Your task to perform on an android device: Play the last video I watched on Youtube Image 0: 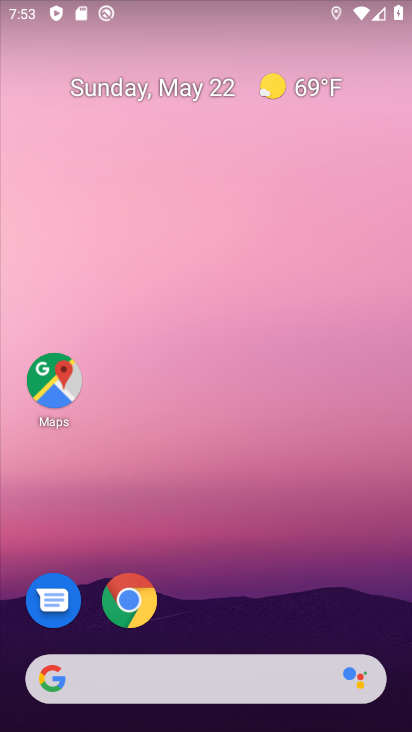
Step 0: drag from (224, 607) to (264, 192)
Your task to perform on an android device: Play the last video I watched on Youtube Image 1: 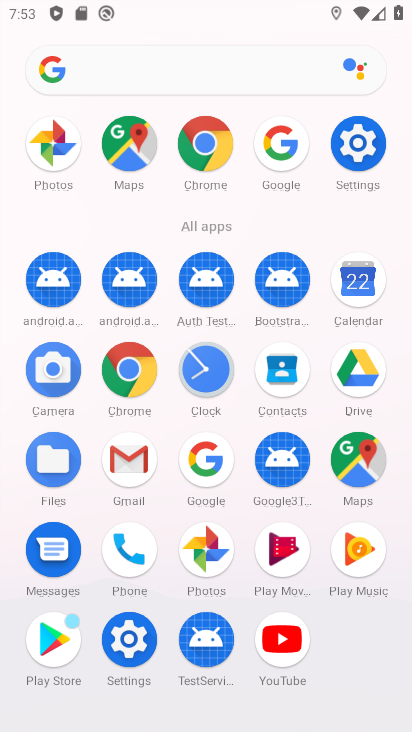
Step 1: click (284, 644)
Your task to perform on an android device: Play the last video I watched on Youtube Image 2: 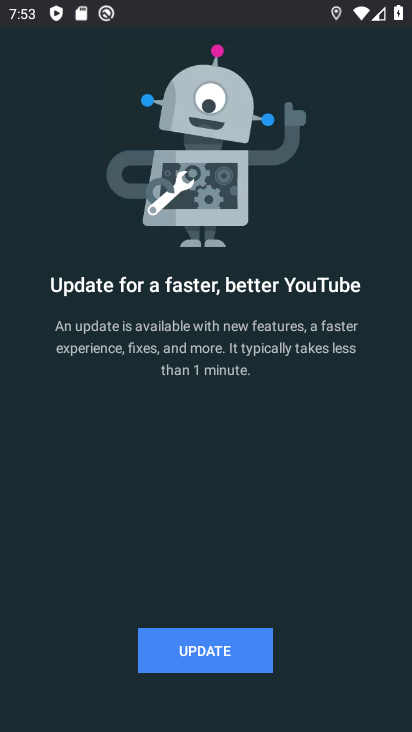
Step 2: click (196, 656)
Your task to perform on an android device: Play the last video I watched on Youtube Image 3: 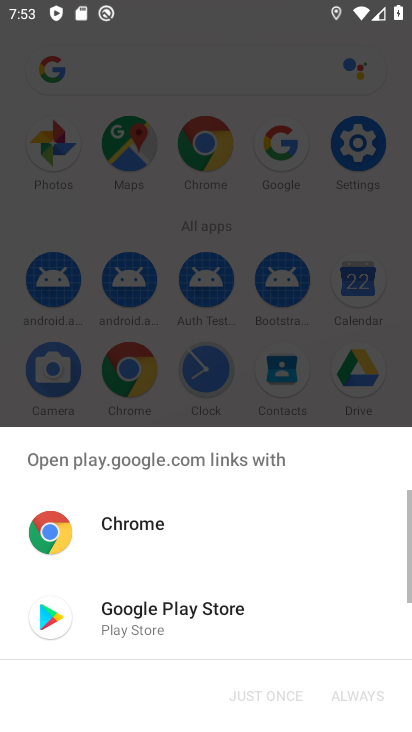
Step 3: click (171, 609)
Your task to perform on an android device: Play the last video I watched on Youtube Image 4: 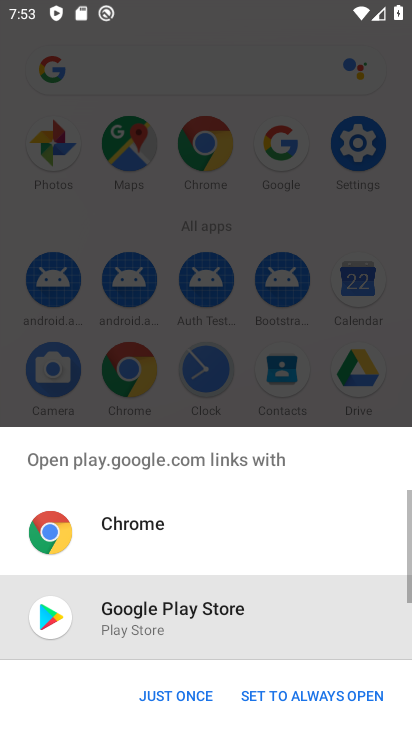
Step 4: click (162, 690)
Your task to perform on an android device: Play the last video I watched on Youtube Image 5: 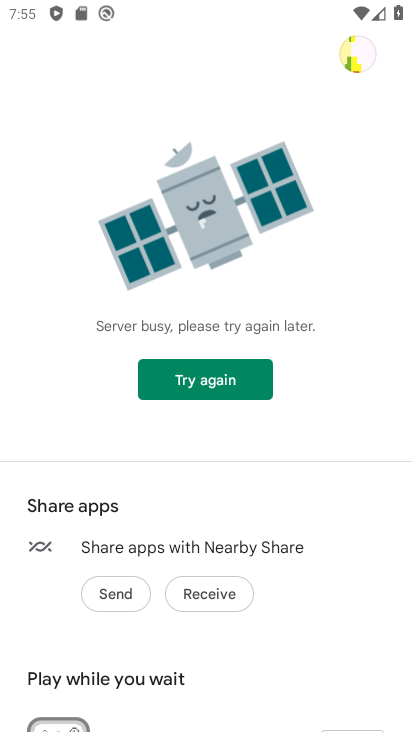
Step 5: task complete